Your task to perform on an android device: What's the news about the US president? Image 0: 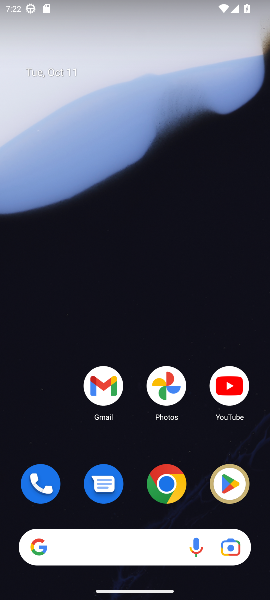
Step 0: click (167, 484)
Your task to perform on an android device: What's the news about the US president? Image 1: 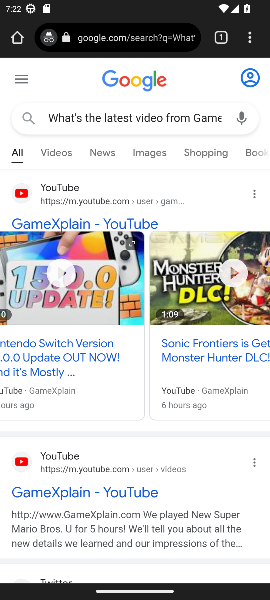
Step 1: click (130, 39)
Your task to perform on an android device: What's the news about the US president? Image 2: 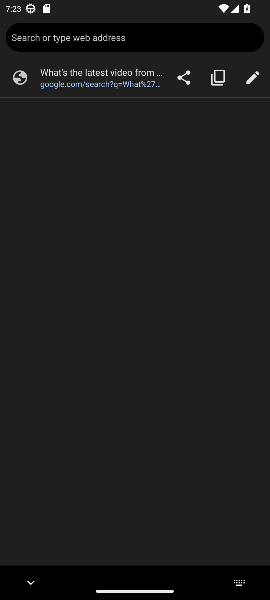
Step 2: type "What's the news about the US president?"
Your task to perform on an android device: What's the news about the US president? Image 3: 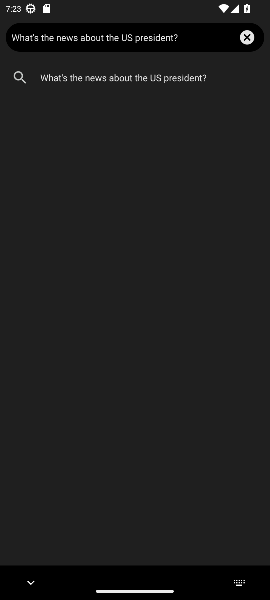
Step 3: click (180, 80)
Your task to perform on an android device: What's the news about the US president? Image 4: 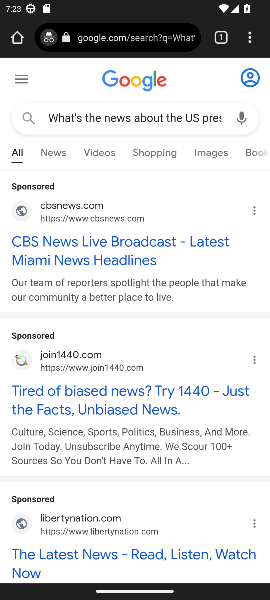
Step 4: drag from (98, 481) to (146, 338)
Your task to perform on an android device: What's the news about the US president? Image 5: 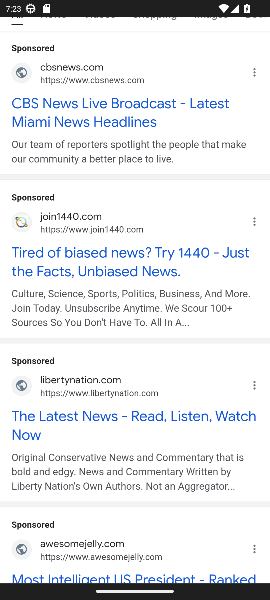
Step 5: drag from (147, 395) to (198, 285)
Your task to perform on an android device: What's the news about the US president? Image 6: 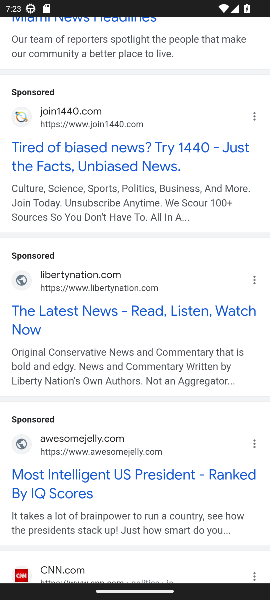
Step 6: drag from (152, 485) to (203, 338)
Your task to perform on an android device: What's the news about the US president? Image 7: 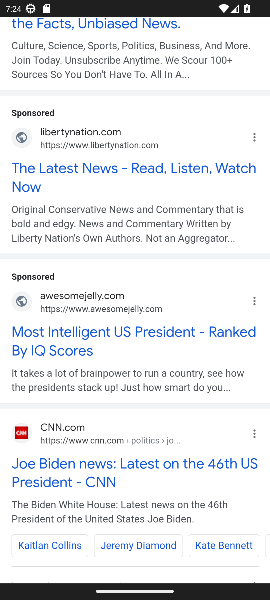
Step 7: click (146, 468)
Your task to perform on an android device: What's the news about the US president? Image 8: 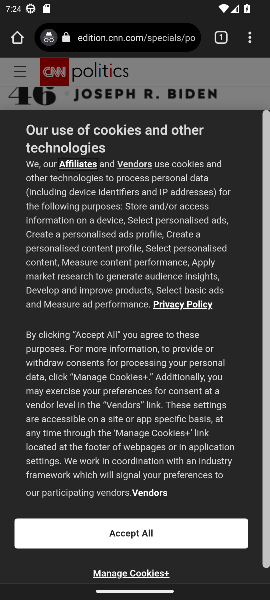
Step 8: click (124, 530)
Your task to perform on an android device: What's the news about the US president? Image 9: 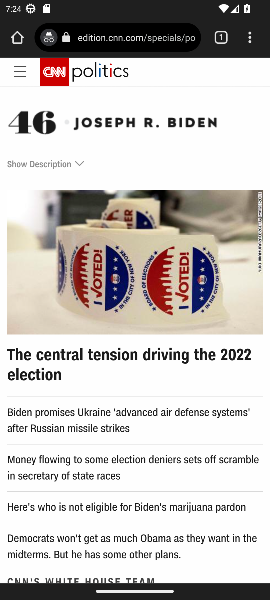
Step 9: task complete